Your task to perform on an android device: Check the news Image 0: 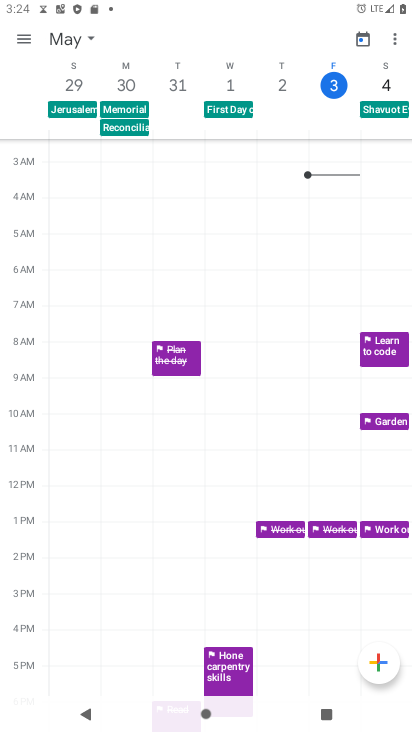
Step 0: press home button
Your task to perform on an android device: Check the news Image 1: 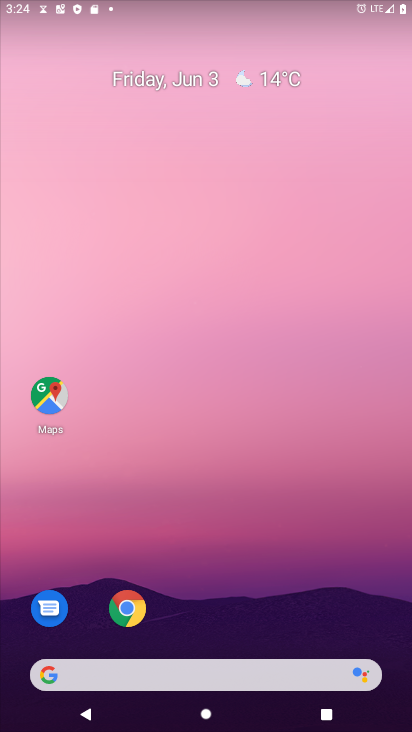
Step 1: task complete